Your task to perform on an android device: open the mobile data screen to see how much data has been used Image 0: 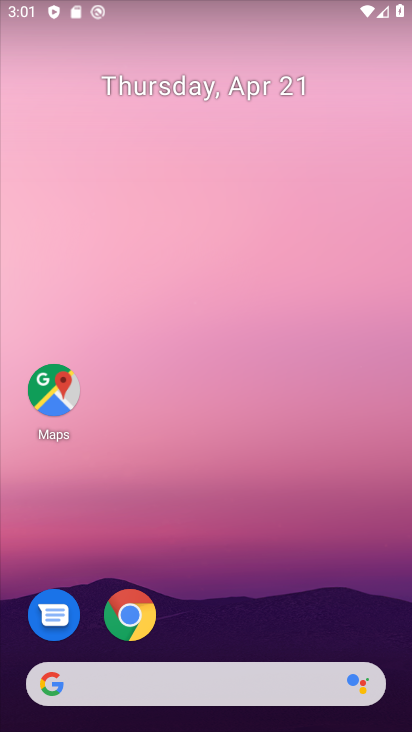
Step 0: drag from (215, 639) to (246, 61)
Your task to perform on an android device: open the mobile data screen to see how much data has been used Image 1: 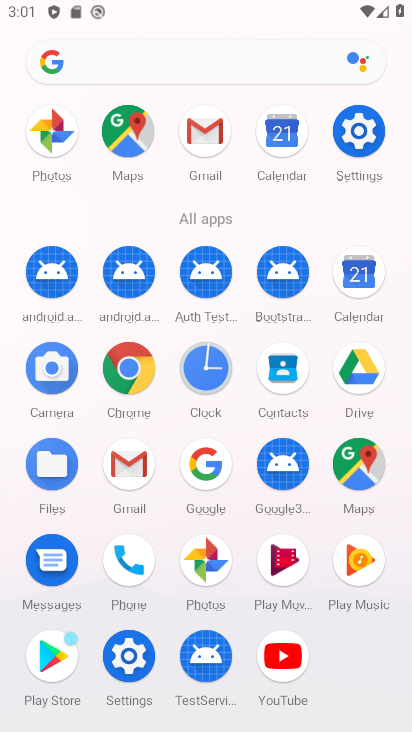
Step 1: click (356, 125)
Your task to perform on an android device: open the mobile data screen to see how much data has been used Image 2: 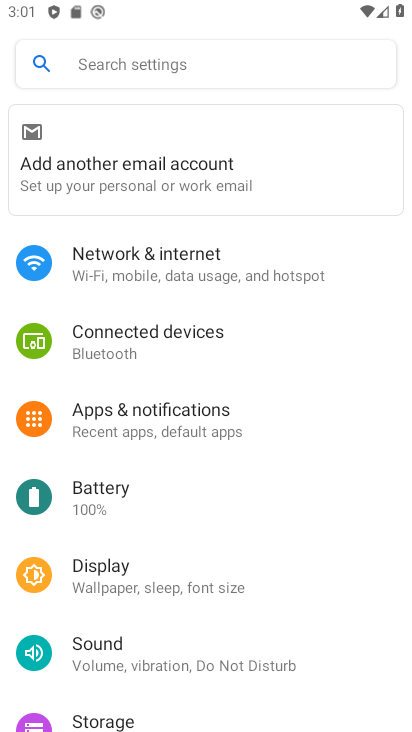
Step 2: click (157, 259)
Your task to perform on an android device: open the mobile data screen to see how much data has been used Image 3: 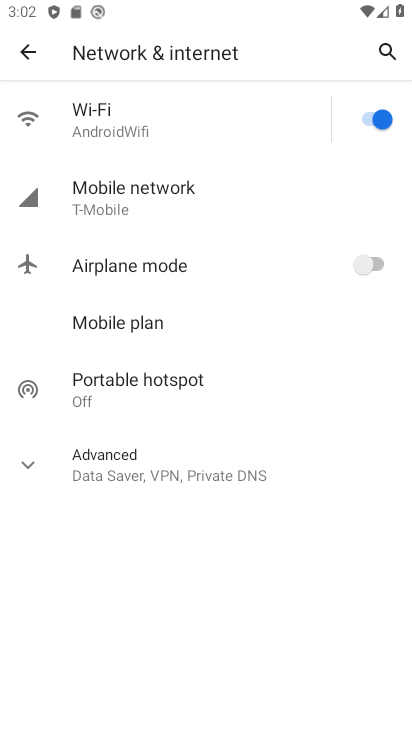
Step 3: click (136, 200)
Your task to perform on an android device: open the mobile data screen to see how much data has been used Image 4: 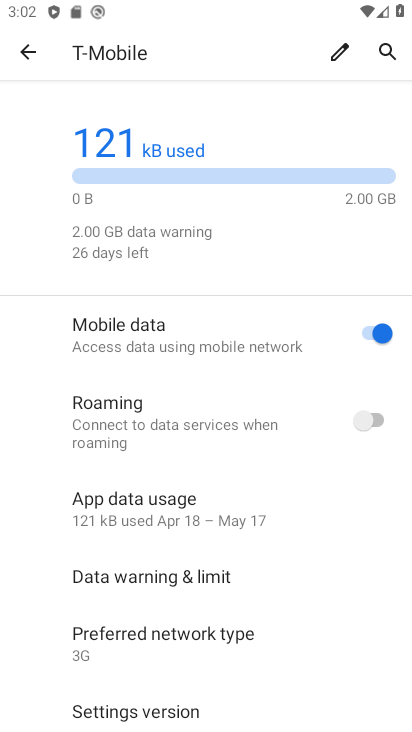
Step 4: click (204, 495)
Your task to perform on an android device: open the mobile data screen to see how much data has been used Image 5: 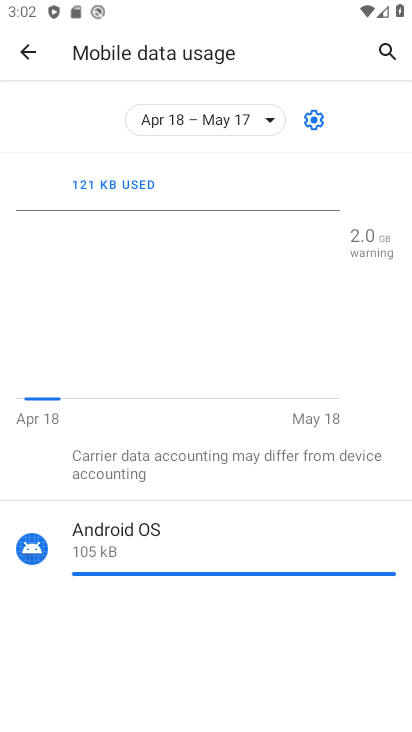
Step 5: task complete